Your task to perform on an android device: See recent photos Image 0: 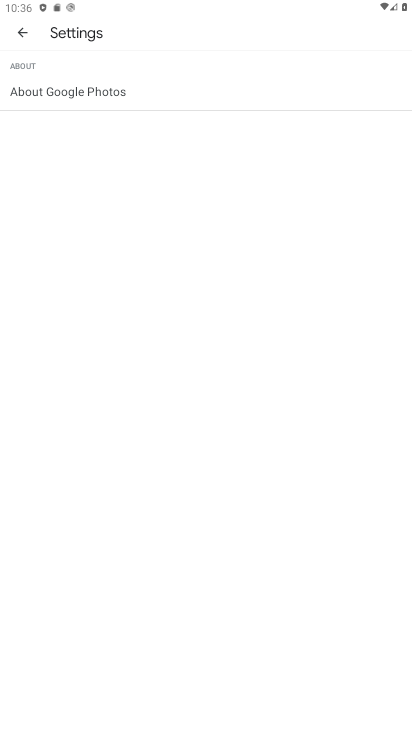
Step 0: press home button
Your task to perform on an android device: See recent photos Image 1: 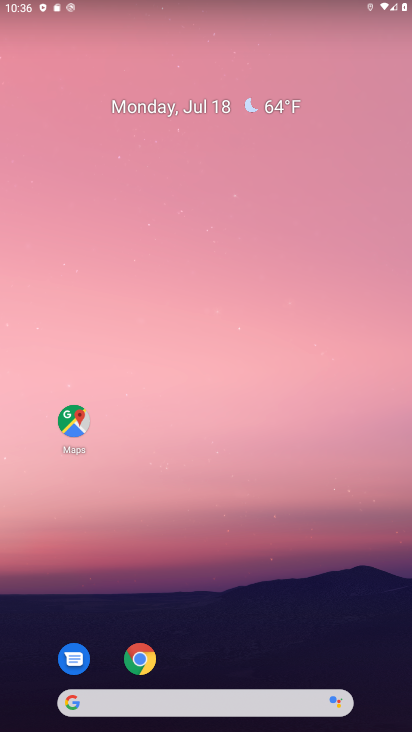
Step 1: drag from (247, 676) to (321, 96)
Your task to perform on an android device: See recent photos Image 2: 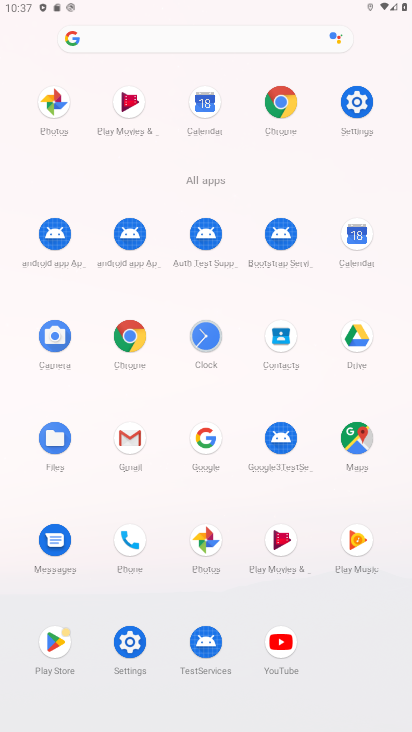
Step 2: click (210, 543)
Your task to perform on an android device: See recent photos Image 3: 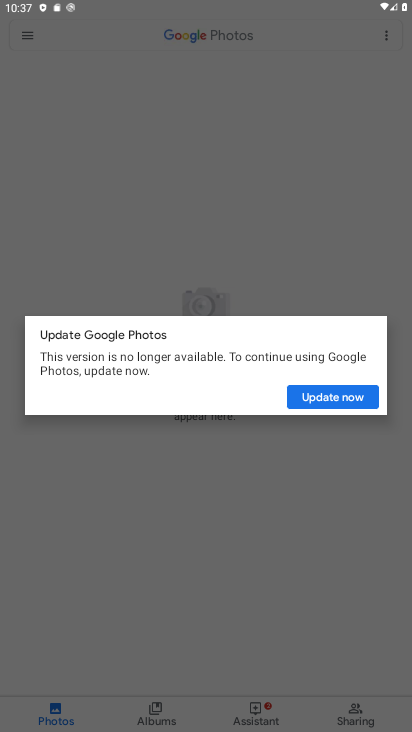
Step 3: click (339, 390)
Your task to perform on an android device: See recent photos Image 4: 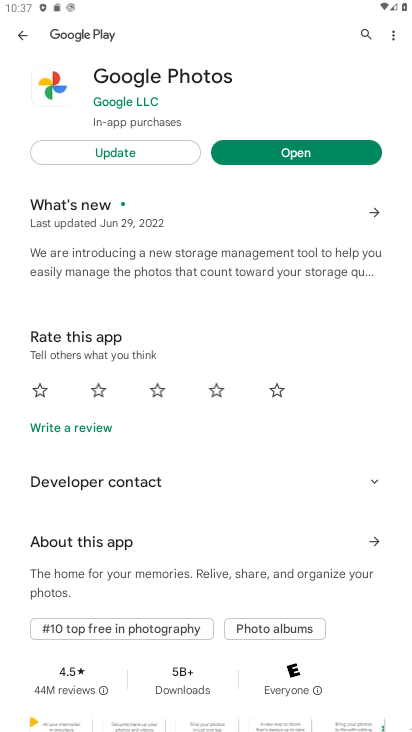
Step 4: click (160, 150)
Your task to perform on an android device: See recent photos Image 5: 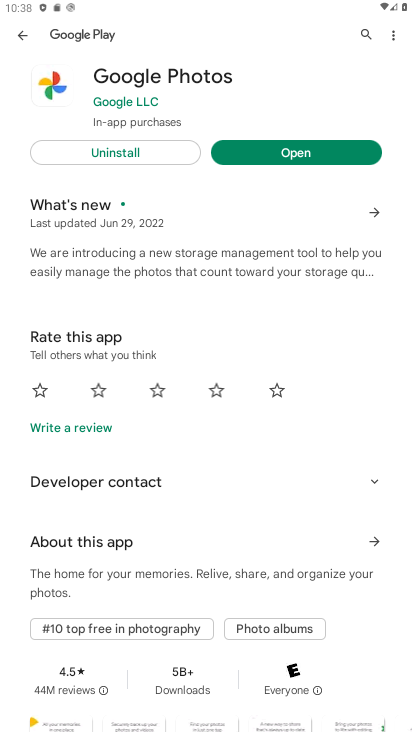
Step 5: click (306, 144)
Your task to perform on an android device: See recent photos Image 6: 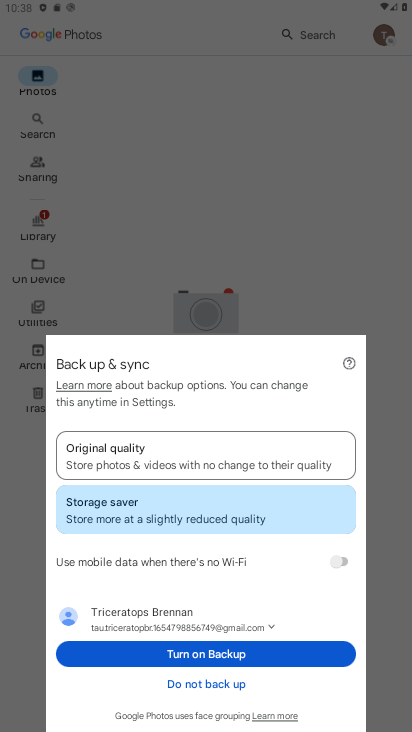
Step 6: task complete